Your task to perform on an android device: toggle data saver in the chrome app Image 0: 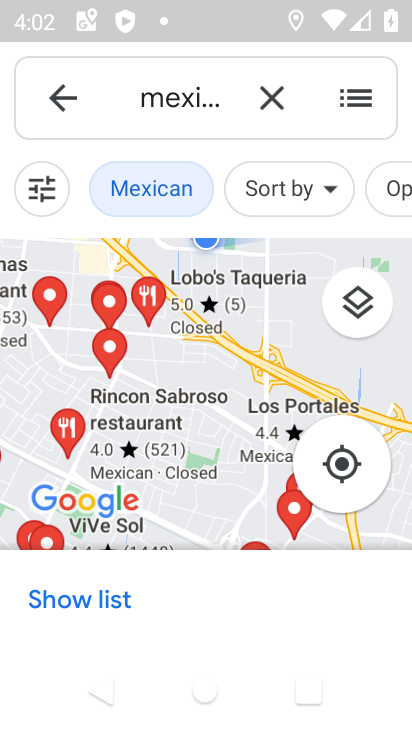
Step 0: task complete